Your task to perform on an android device: Open maps Image 0: 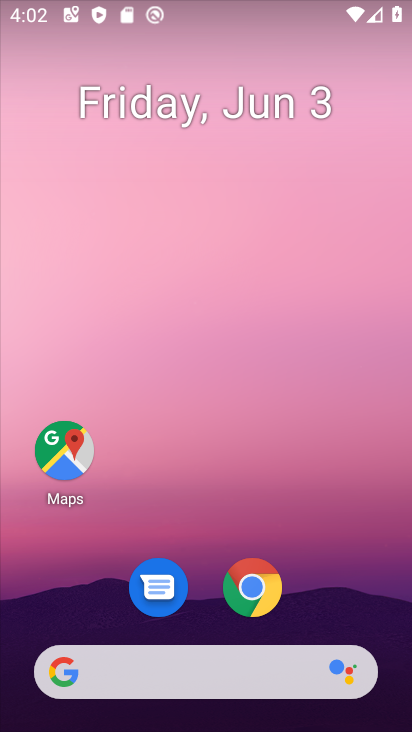
Step 0: click (80, 463)
Your task to perform on an android device: Open maps Image 1: 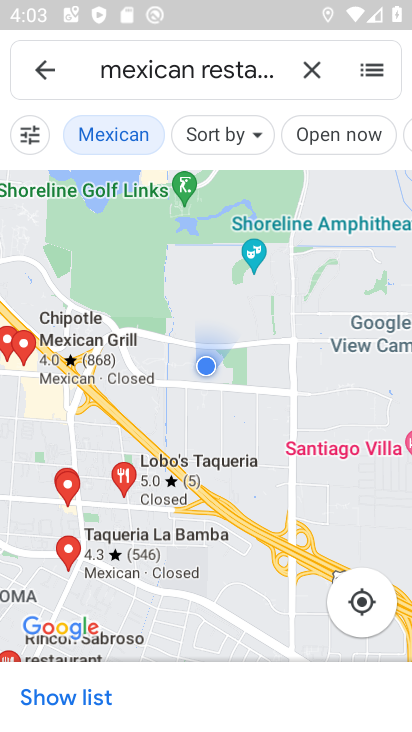
Step 1: task complete